Your task to perform on an android device: delete a single message in the gmail app Image 0: 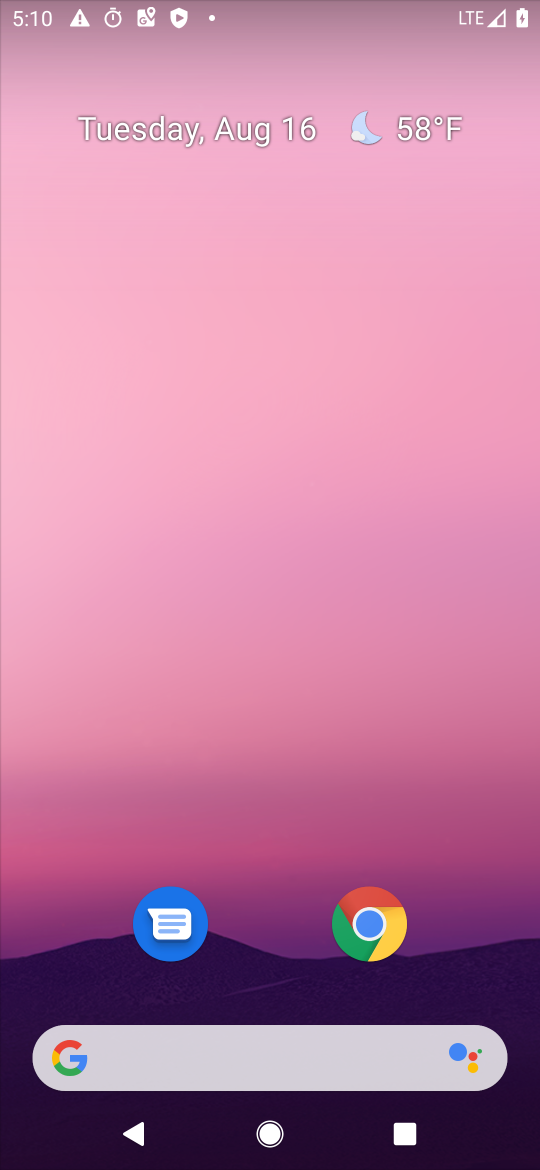
Step 0: drag from (259, 970) to (220, 149)
Your task to perform on an android device: delete a single message in the gmail app Image 1: 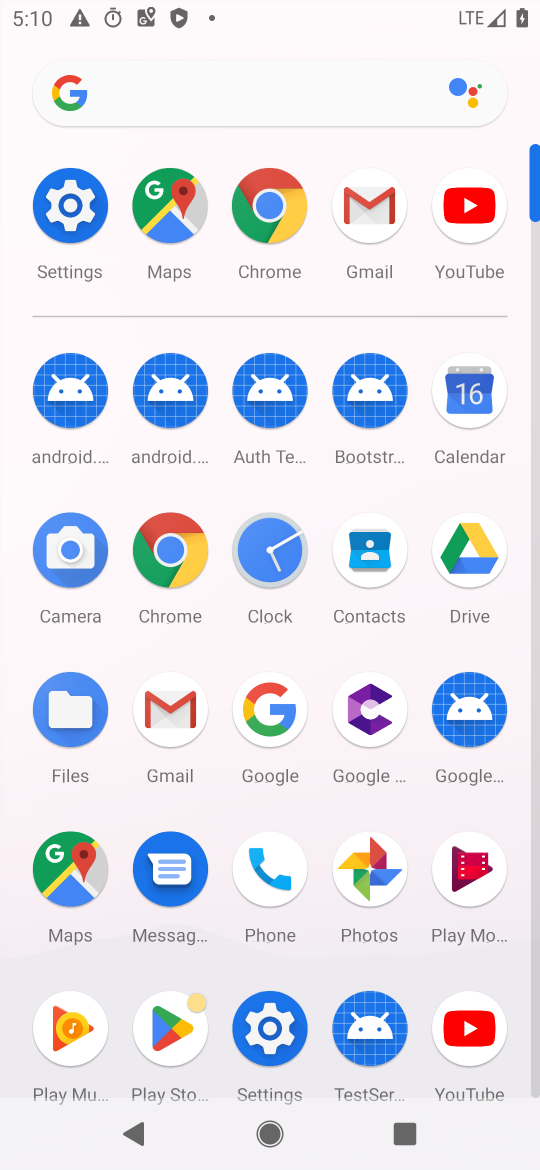
Step 1: click (372, 198)
Your task to perform on an android device: delete a single message in the gmail app Image 2: 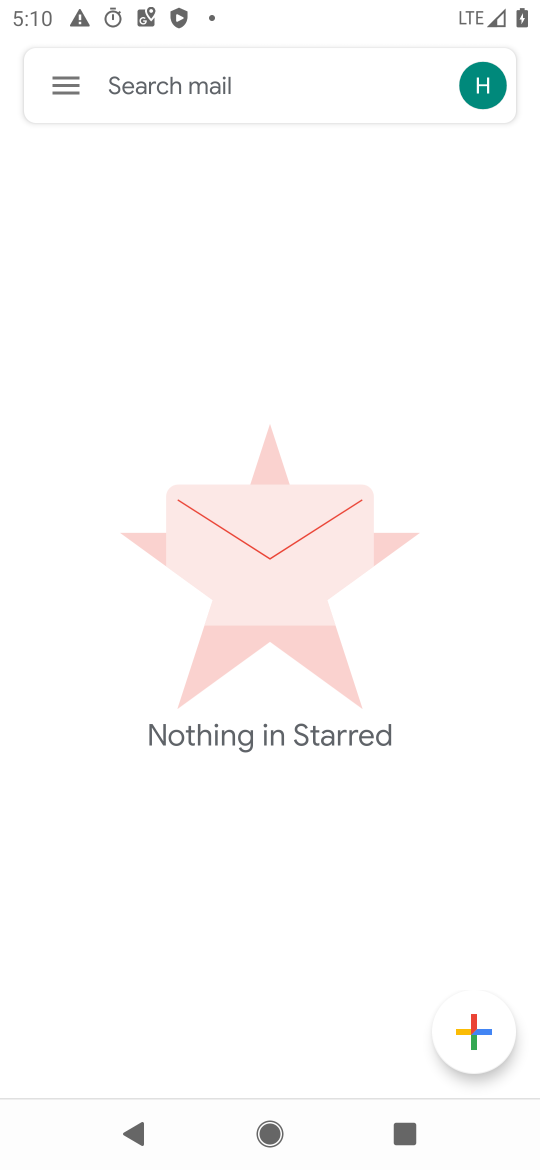
Step 2: click (66, 64)
Your task to perform on an android device: delete a single message in the gmail app Image 3: 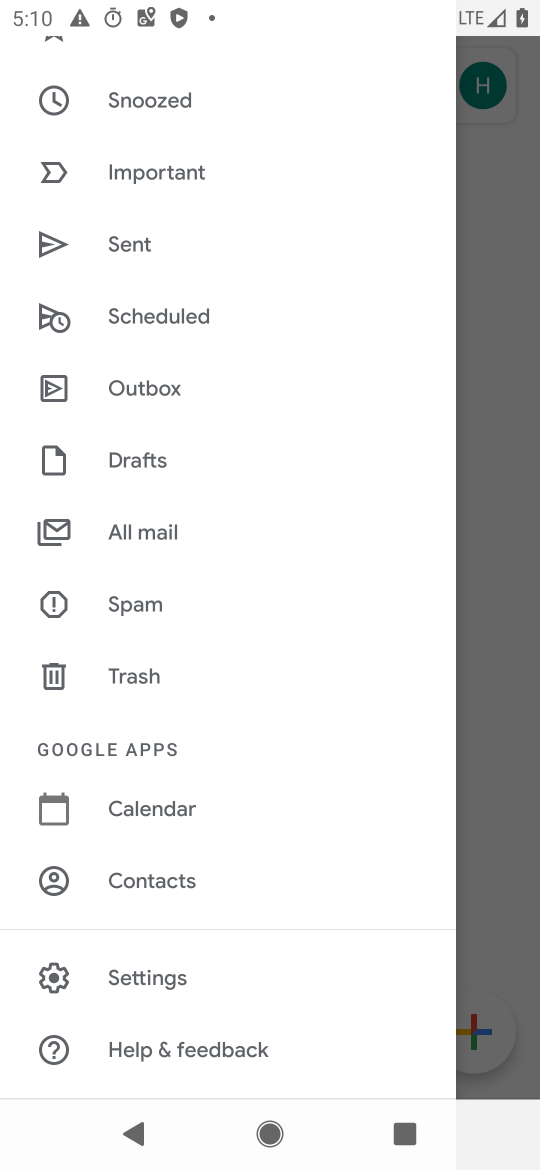
Step 3: click (217, 533)
Your task to perform on an android device: delete a single message in the gmail app Image 4: 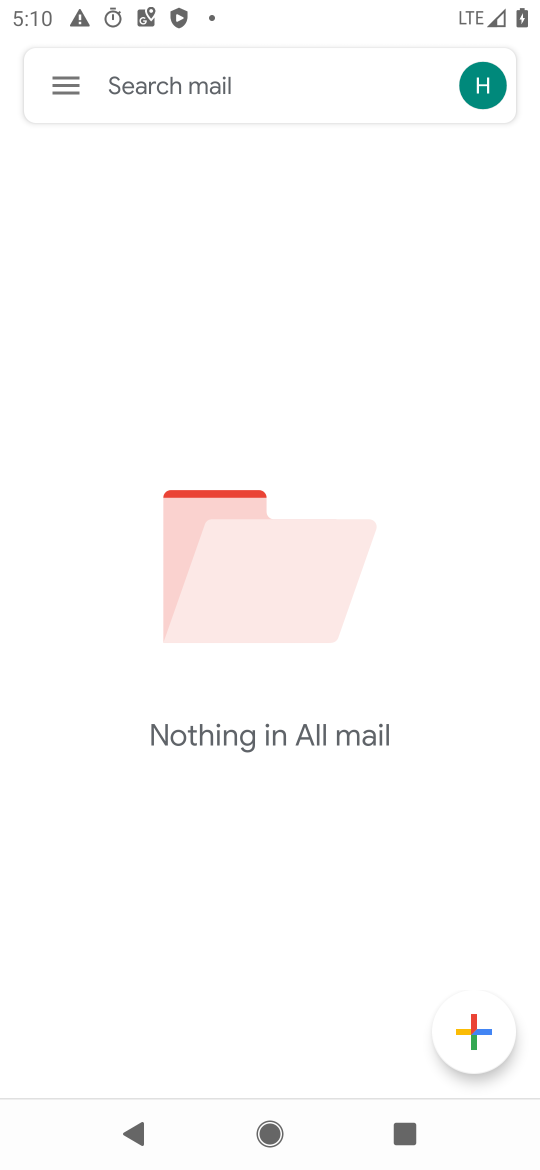
Step 4: task complete